Your task to perform on an android device: Open settings on Google Maps Image 0: 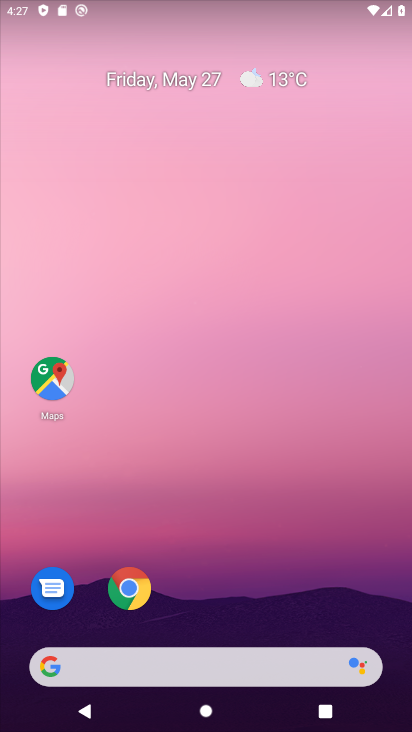
Step 0: click (48, 383)
Your task to perform on an android device: Open settings on Google Maps Image 1: 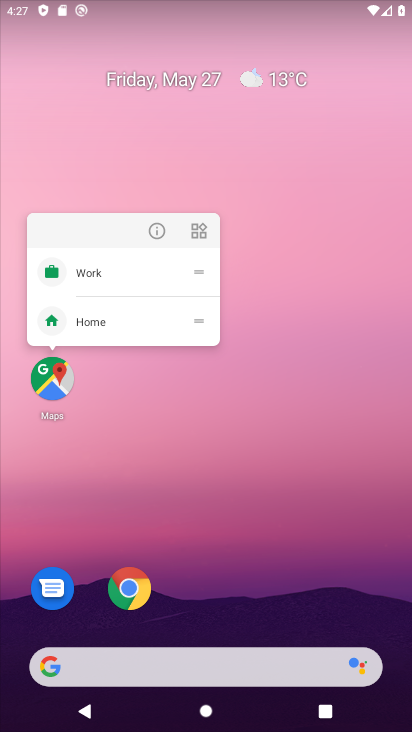
Step 1: click (51, 382)
Your task to perform on an android device: Open settings on Google Maps Image 2: 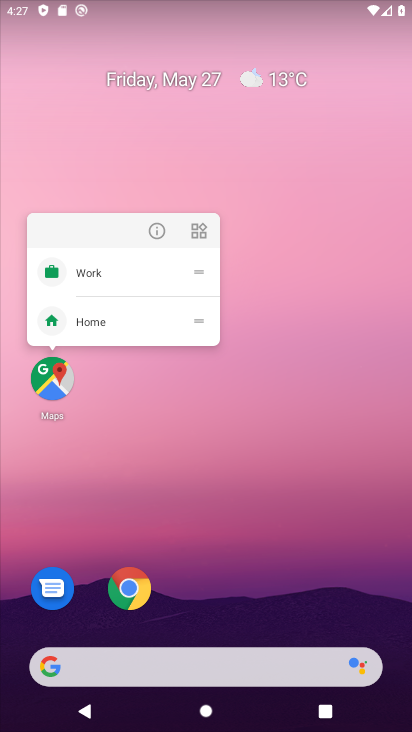
Step 2: click (31, 371)
Your task to perform on an android device: Open settings on Google Maps Image 3: 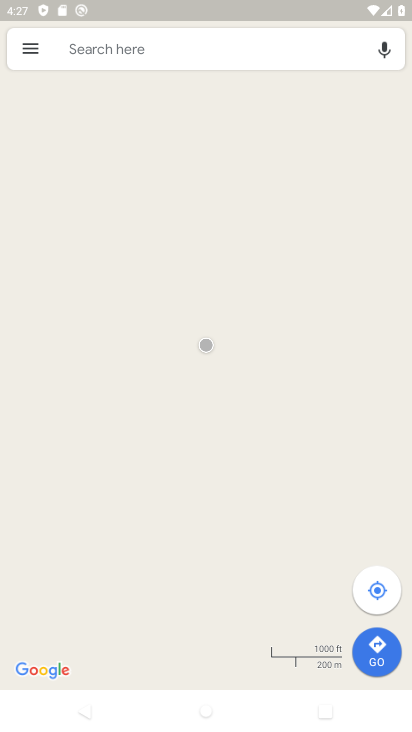
Step 3: click (30, 45)
Your task to perform on an android device: Open settings on Google Maps Image 4: 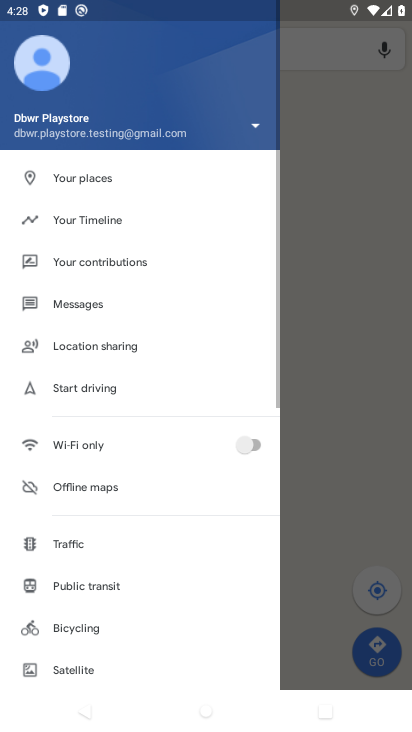
Step 4: drag from (98, 635) to (178, 194)
Your task to perform on an android device: Open settings on Google Maps Image 5: 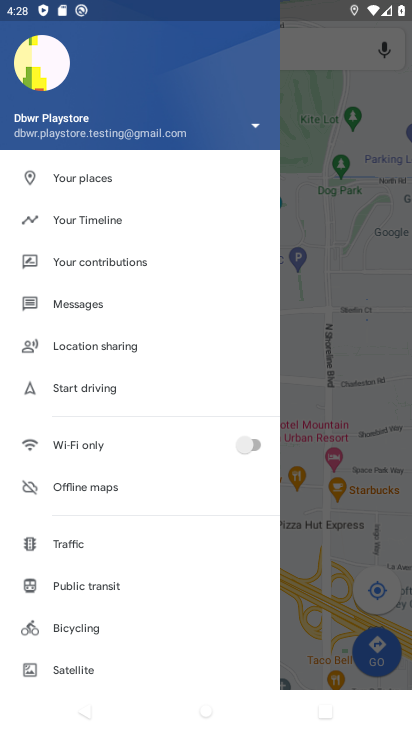
Step 5: drag from (103, 604) to (176, 201)
Your task to perform on an android device: Open settings on Google Maps Image 6: 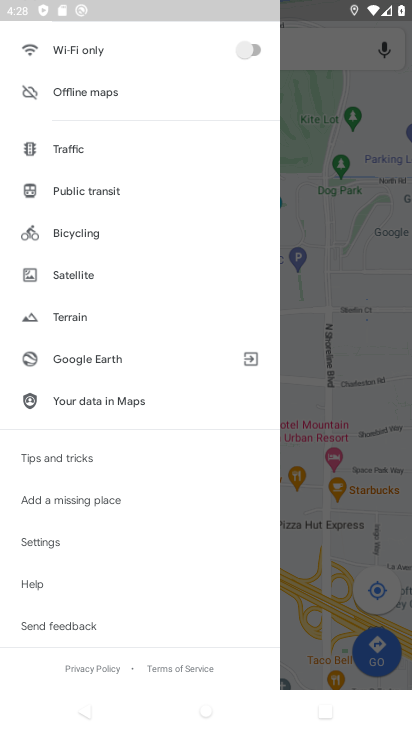
Step 6: click (54, 541)
Your task to perform on an android device: Open settings on Google Maps Image 7: 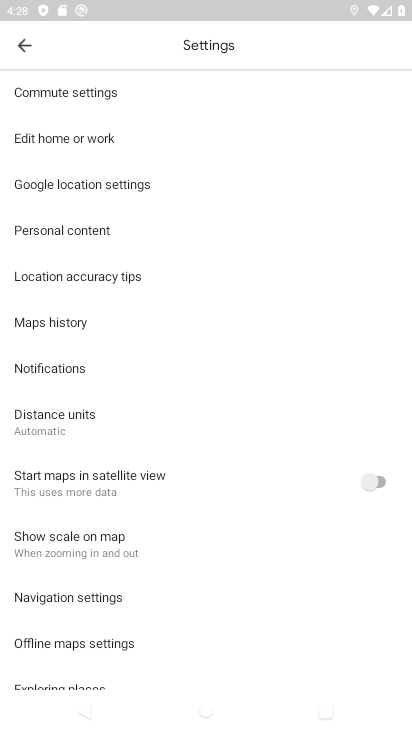
Step 7: task complete